Your task to perform on an android device: Go to Yahoo.com Image 0: 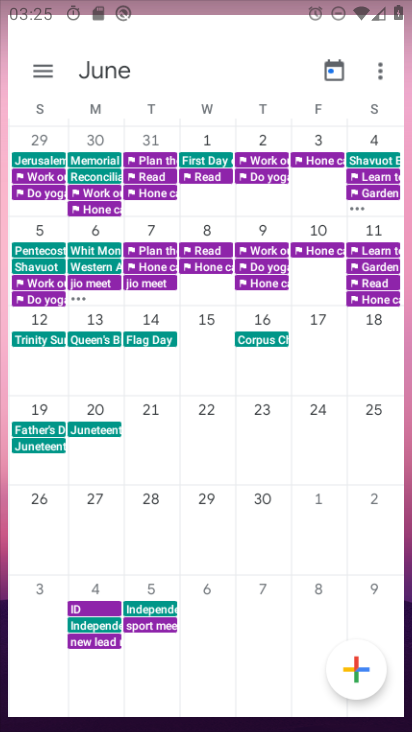
Step 0: drag from (185, 655) to (235, 165)
Your task to perform on an android device: Go to Yahoo.com Image 1: 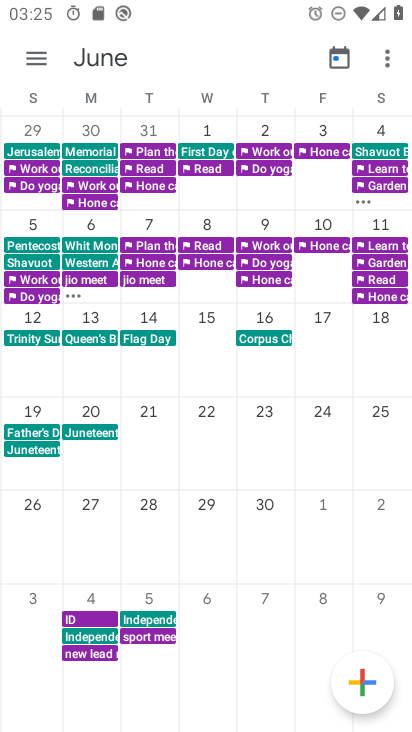
Step 1: press home button
Your task to perform on an android device: Go to Yahoo.com Image 2: 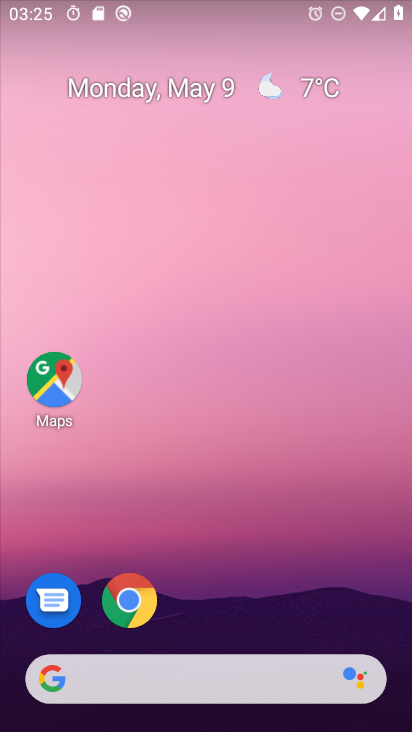
Step 2: click (131, 607)
Your task to perform on an android device: Go to Yahoo.com Image 3: 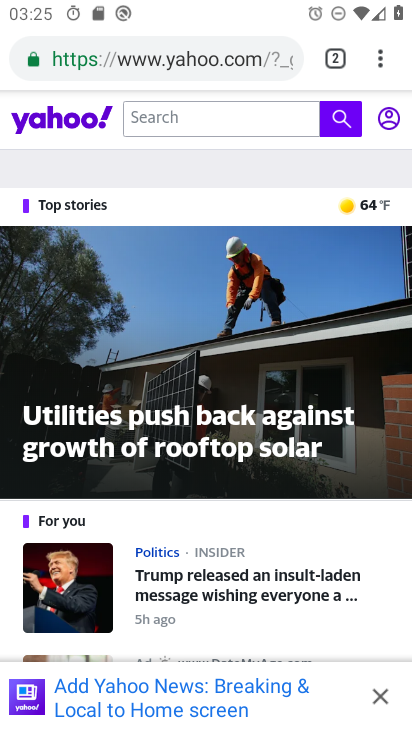
Step 3: task complete